Your task to perform on an android device: turn off location Image 0: 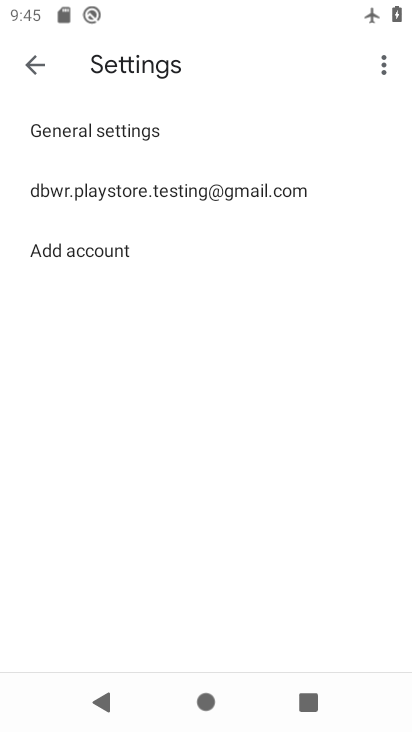
Step 0: press home button
Your task to perform on an android device: turn off location Image 1: 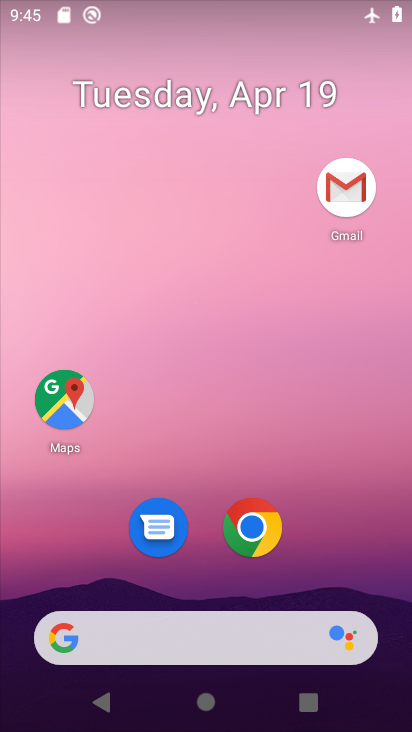
Step 1: drag from (361, 523) to (323, 91)
Your task to perform on an android device: turn off location Image 2: 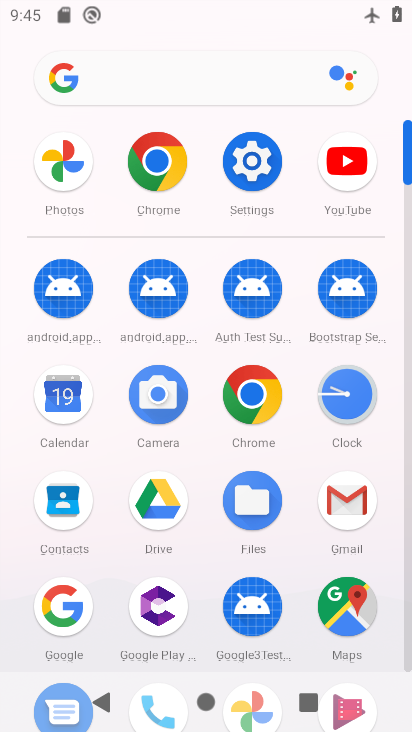
Step 2: click (251, 179)
Your task to perform on an android device: turn off location Image 3: 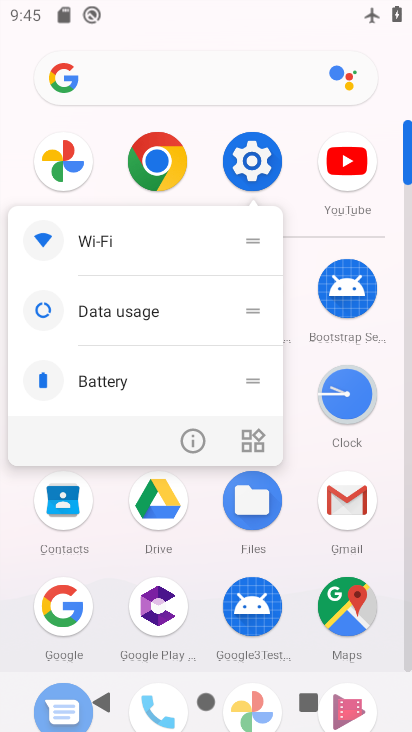
Step 3: click (250, 181)
Your task to perform on an android device: turn off location Image 4: 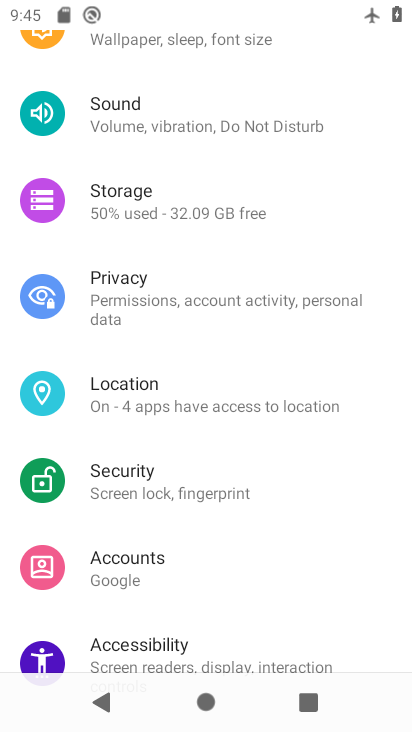
Step 4: click (123, 391)
Your task to perform on an android device: turn off location Image 5: 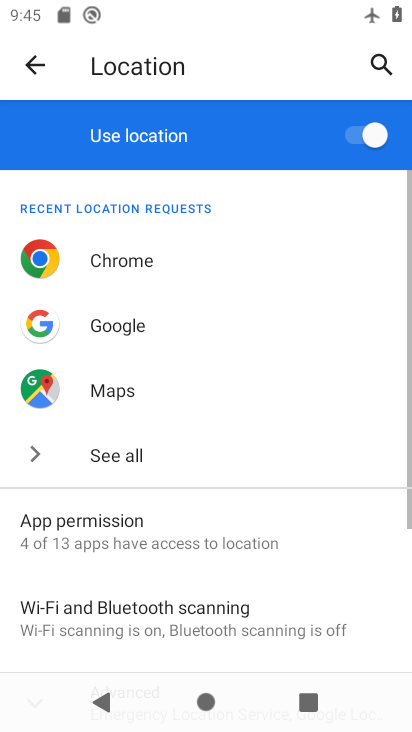
Step 5: click (350, 140)
Your task to perform on an android device: turn off location Image 6: 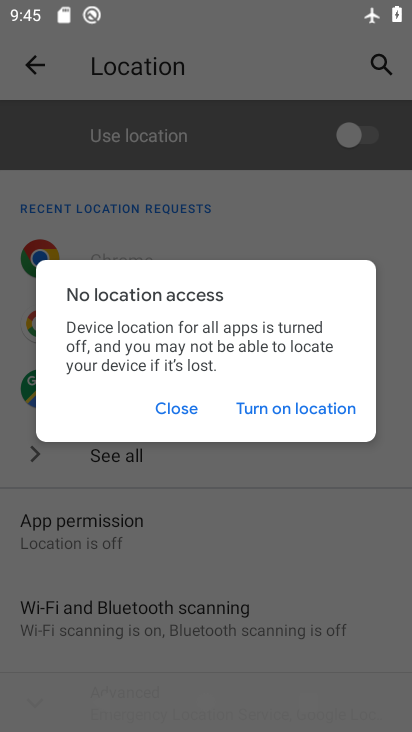
Step 6: task complete